Your task to perform on an android device: Open Reddit.com Image 0: 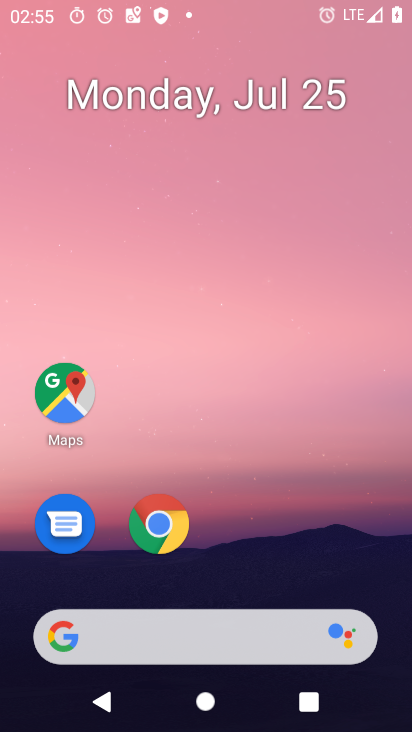
Step 0: press home button
Your task to perform on an android device: Open Reddit.com Image 1: 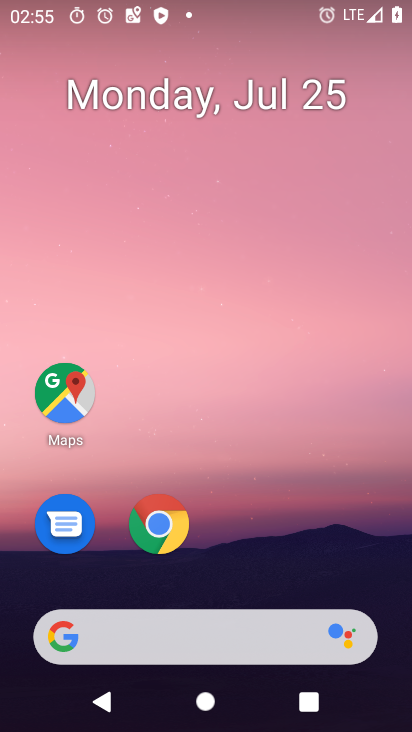
Step 1: click (49, 631)
Your task to perform on an android device: Open Reddit.com Image 2: 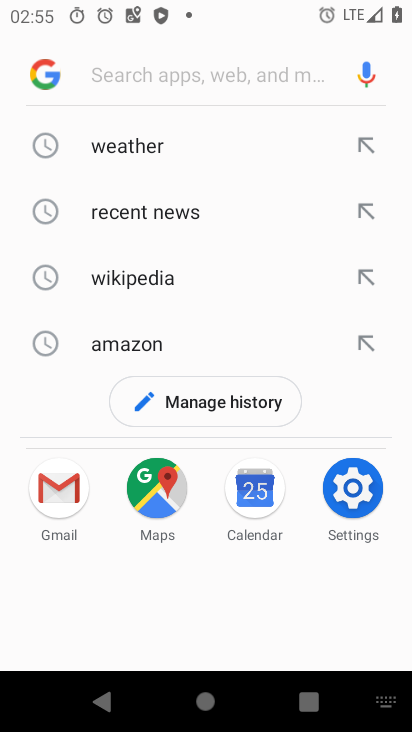
Step 2: type "Reddit.com"
Your task to perform on an android device: Open Reddit.com Image 3: 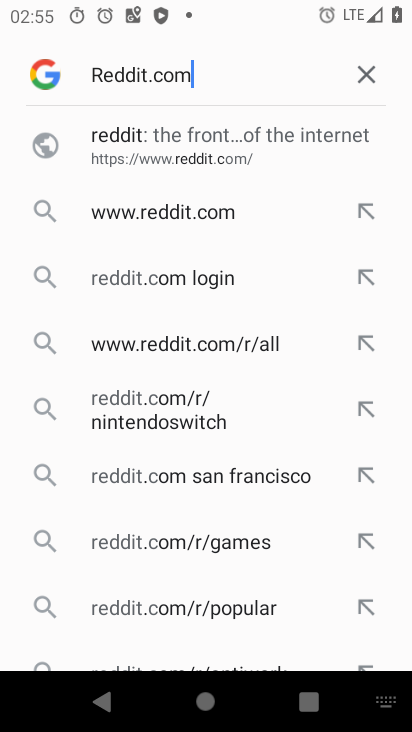
Step 3: press enter
Your task to perform on an android device: Open Reddit.com Image 4: 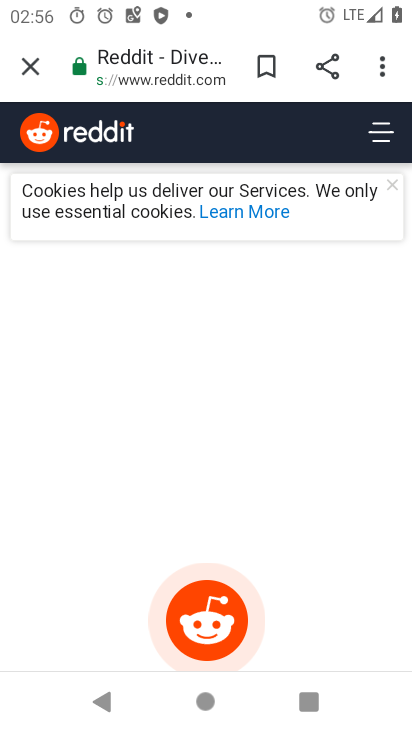
Step 4: task complete